Your task to perform on an android device: check google app version Image 0: 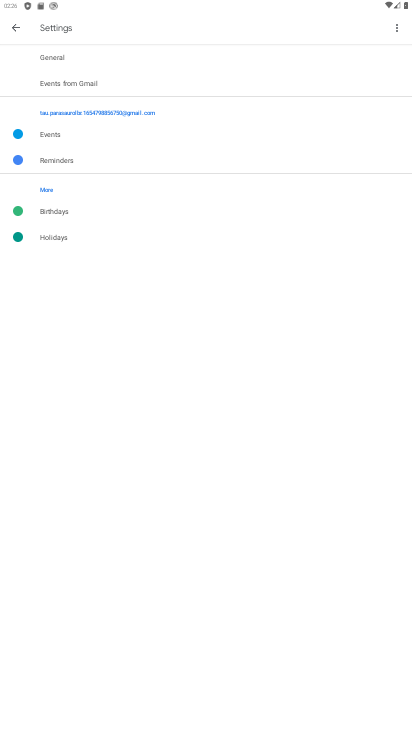
Step 0: press home button
Your task to perform on an android device: check google app version Image 1: 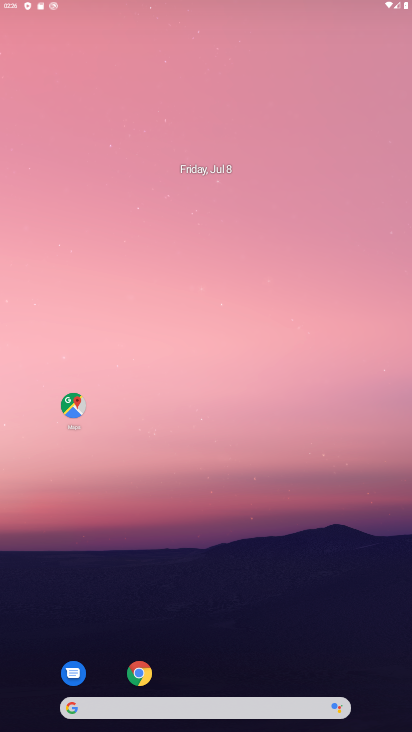
Step 1: drag from (293, 632) to (168, 52)
Your task to perform on an android device: check google app version Image 2: 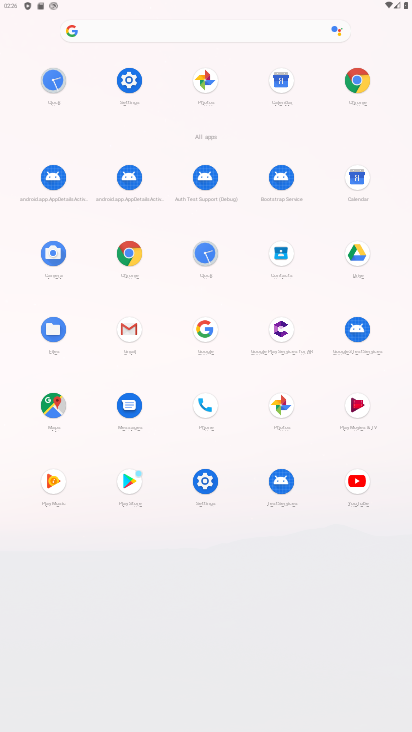
Step 2: click (117, 63)
Your task to perform on an android device: check google app version Image 3: 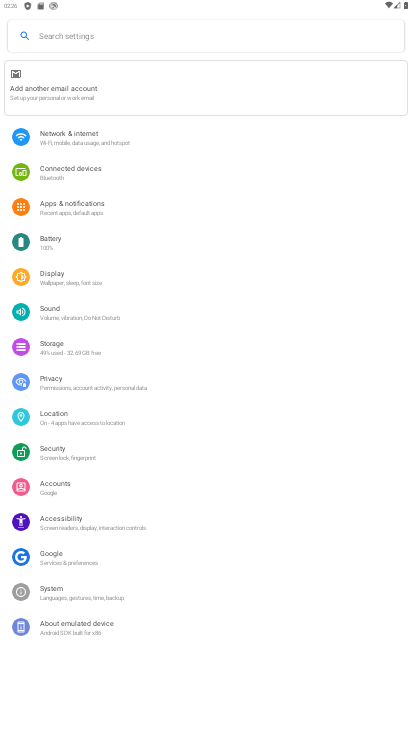
Step 3: press home button
Your task to perform on an android device: check google app version Image 4: 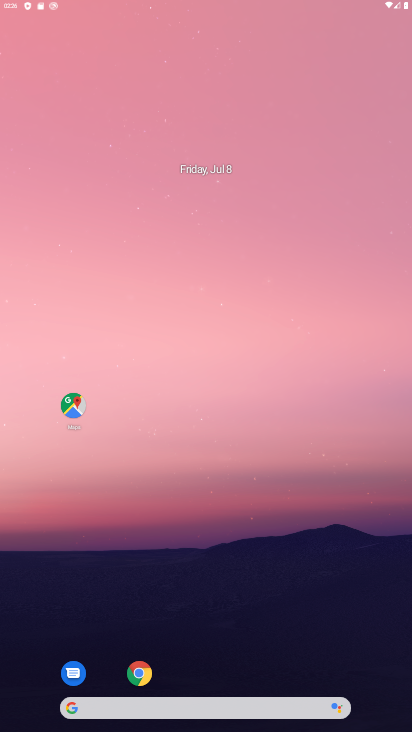
Step 4: drag from (213, 587) to (206, 0)
Your task to perform on an android device: check google app version Image 5: 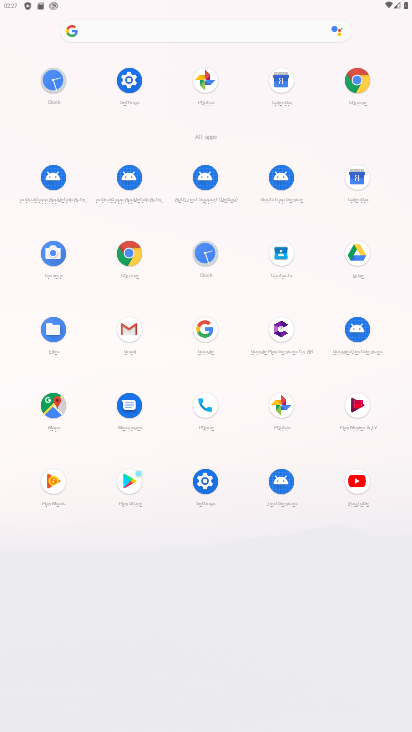
Step 5: click (205, 334)
Your task to perform on an android device: check google app version Image 6: 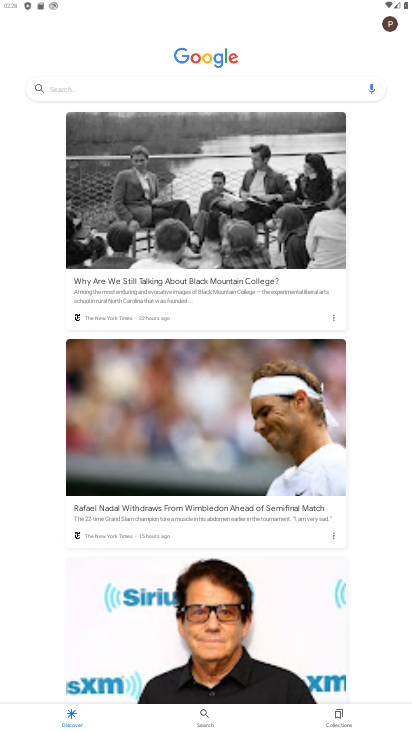
Step 6: click (394, 32)
Your task to perform on an android device: check google app version Image 7: 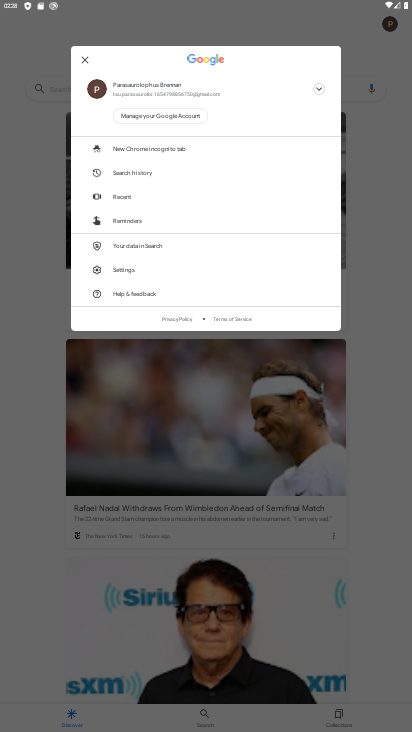
Step 7: click (95, 266)
Your task to perform on an android device: check google app version Image 8: 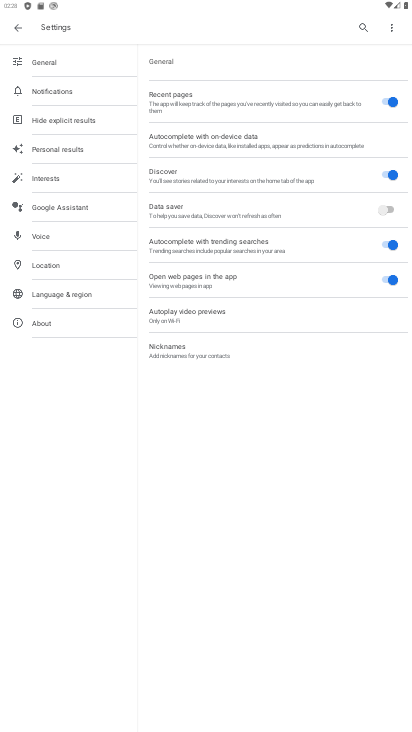
Step 8: click (45, 325)
Your task to perform on an android device: check google app version Image 9: 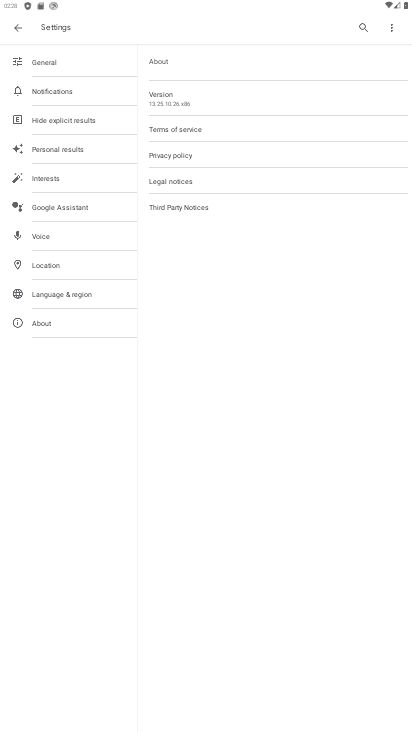
Step 9: click (161, 93)
Your task to perform on an android device: check google app version Image 10: 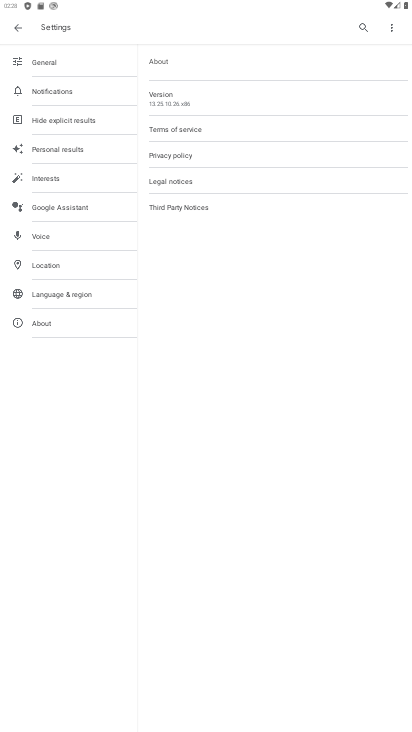
Step 10: task complete